Your task to perform on an android device: Show me popular videos on Youtube Image 0: 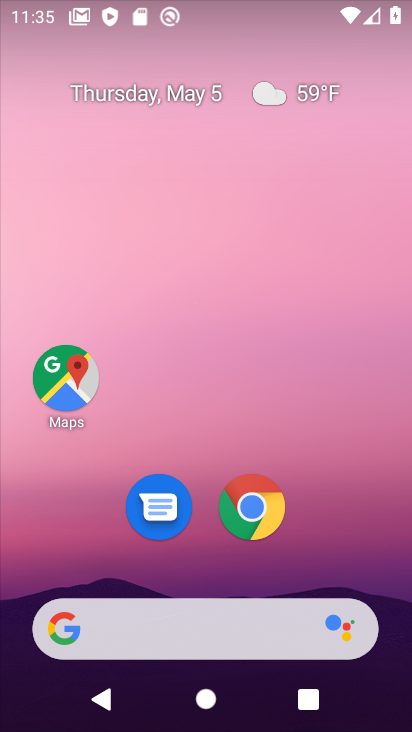
Step 0: drag from (288, 119) to (296, 6)
Your task to perform on an android device: Show me popular videos on Youtube Image 1: 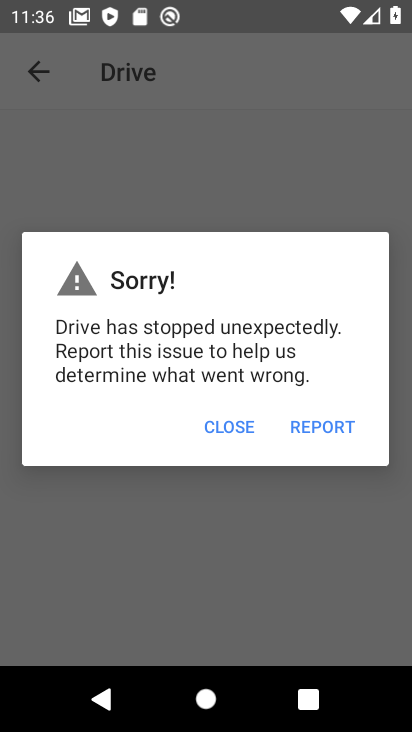
Step 1: press home button
Your task to perform on an android device: Show me popular videos on Youtube Image 2: 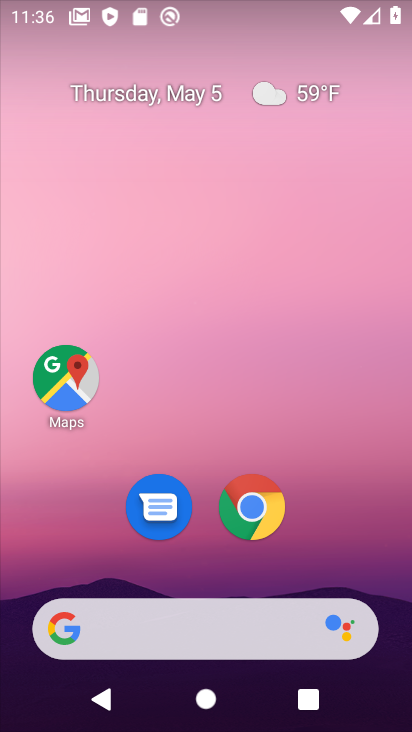
Step 2: drag from (316, 559) to (347, 19)
Your task to perform on an android device: Show me popular videos on Youtube Image 3: 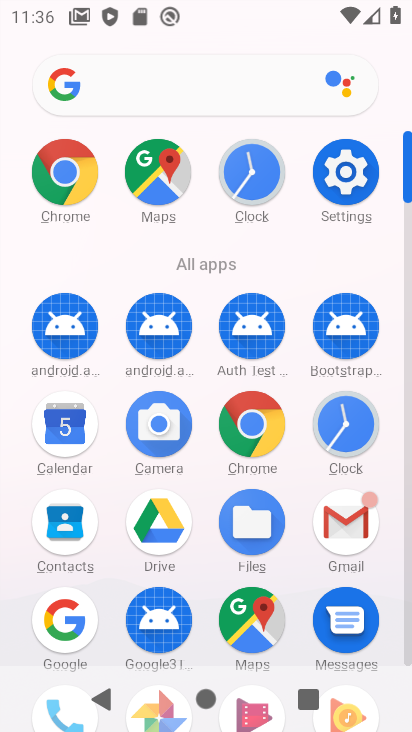
Step 3: drag from (211, 572) to (216, 42)
Your task to perform on an android device: Show me popular videos on Youtube Image 4: 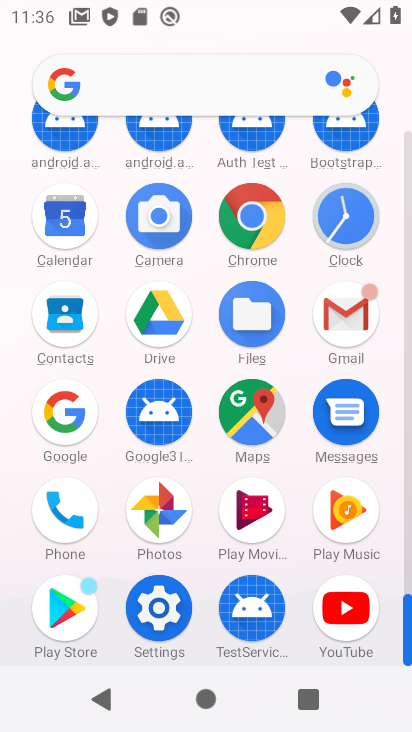
Step 4: click (336, 602)
Your task to perform on an android device: Show me popular videos on Youtube Image 5: 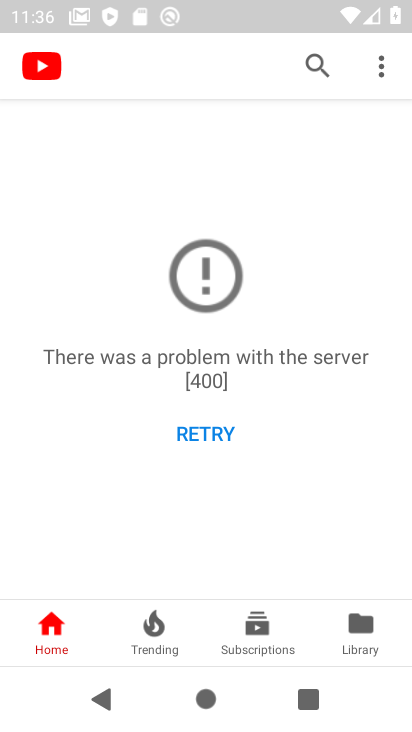
Step 5: click (148, 637)
Your task to perform on an android device: Show me popular videos on Youtube Image 6: 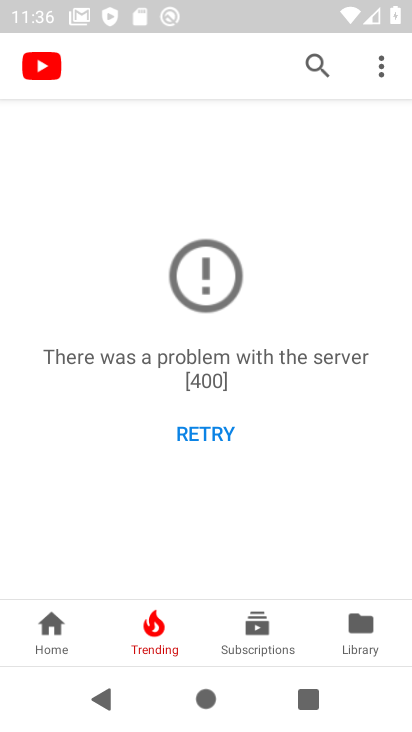
Step 6: task complete